Your task to perform on an android device: Open privacy settings Image 0: 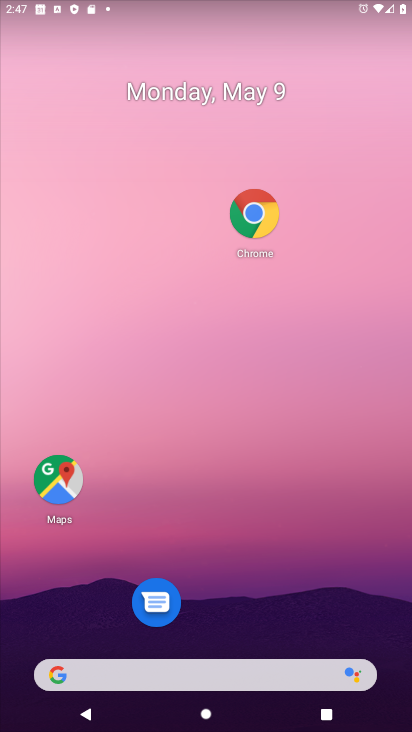
Step 0: drag from (290, 615) to (234, 195)
Your task to perform on an android device: Open privacy settings Image 1: 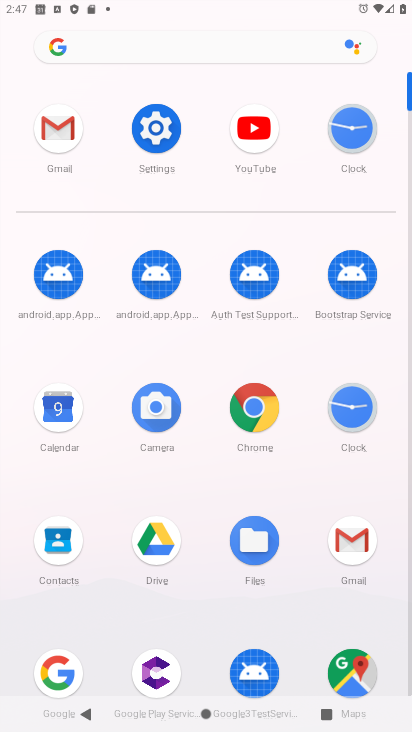
Step 1: click (146, 114)
Your task to perform on an android device: Open privacy settings Image 2: 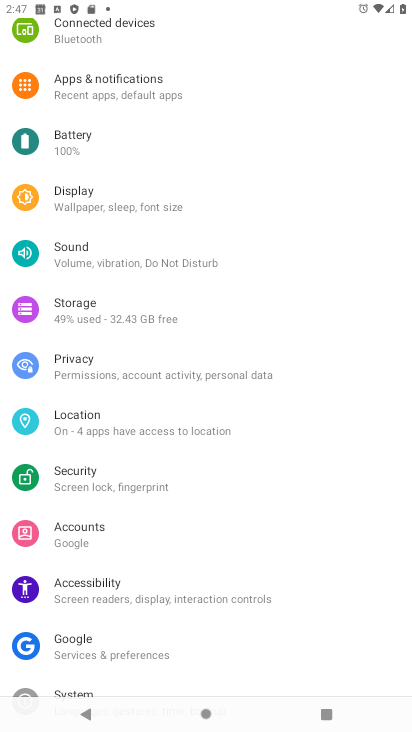
Step 2: click (161, 360)
Your task to perform on an android device: Open privacy settings Image 3: 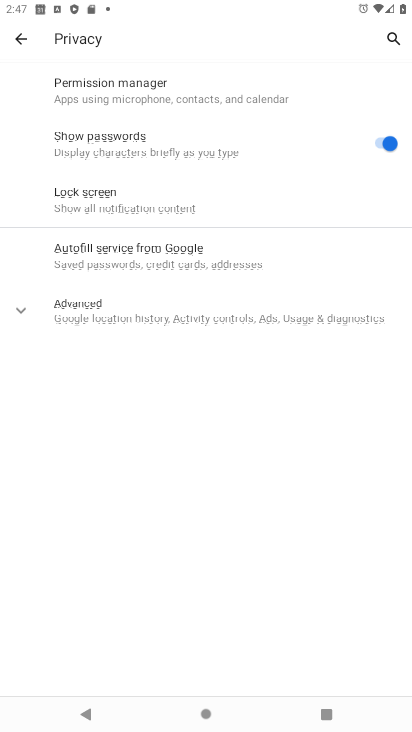
Step 3: task complete